Your task to perform on an android device: Clear all items from cart on walmart.com. Add duracell triple a to the cart on walmart.com, then select checkout. Image 0: 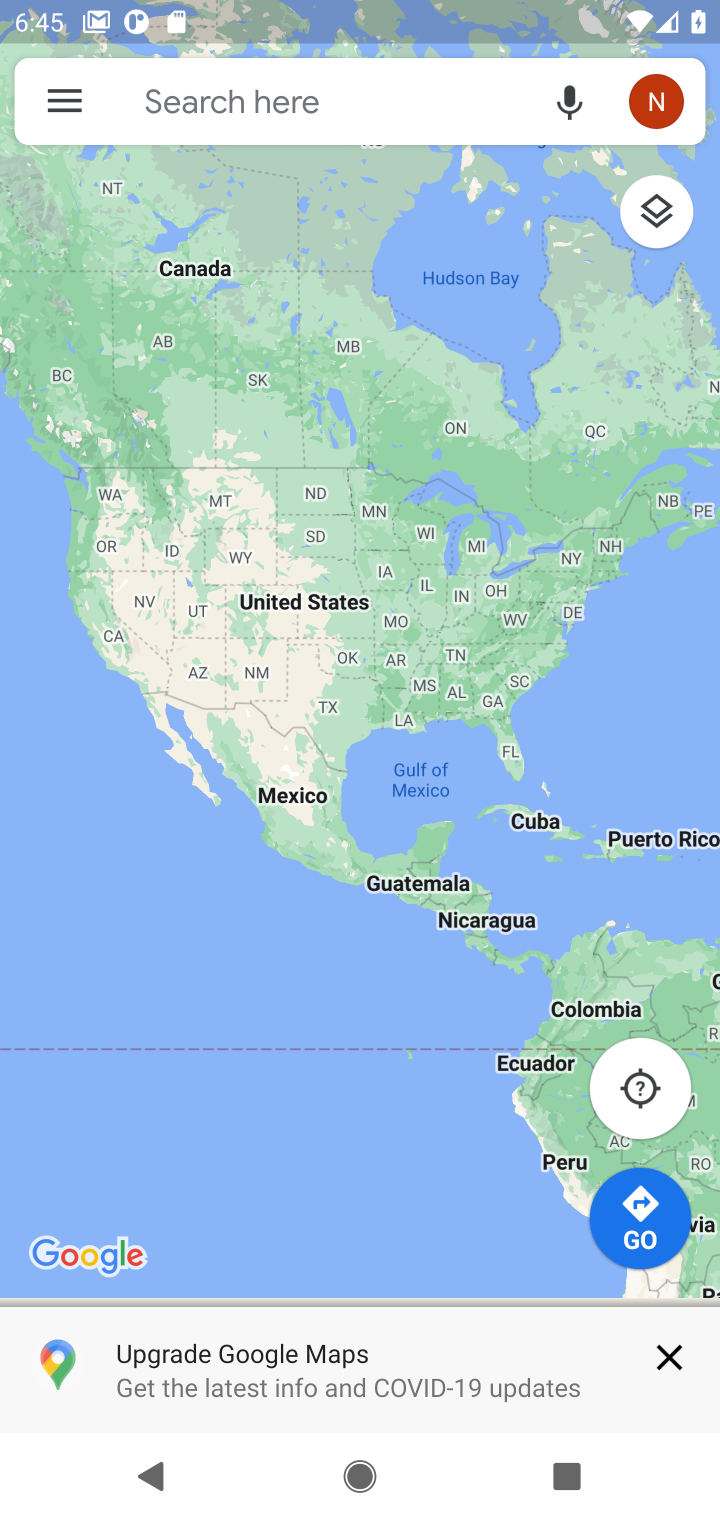
Step 0: press home button
Your task to perform on an android device: Clear all items from cart on walmart.com. Add duracell triple a to the cart on walmart.com, then select checkout. Image 1: 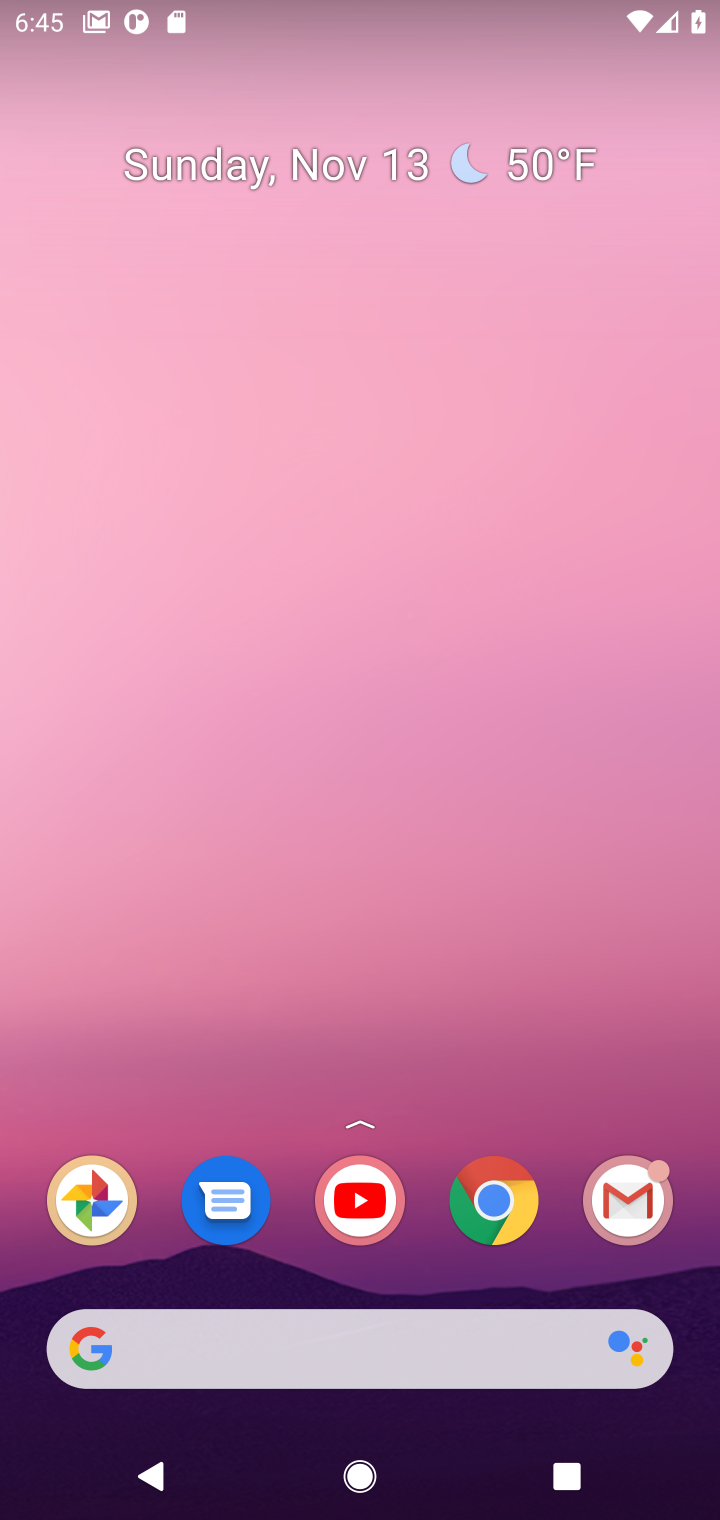
Step 1: click (468, 1212)
Your task to perform on an android device: Clear all items from cart on walmart.com. Add duracell triple a to the cart on walmart.com, then select checkout. Image 2: 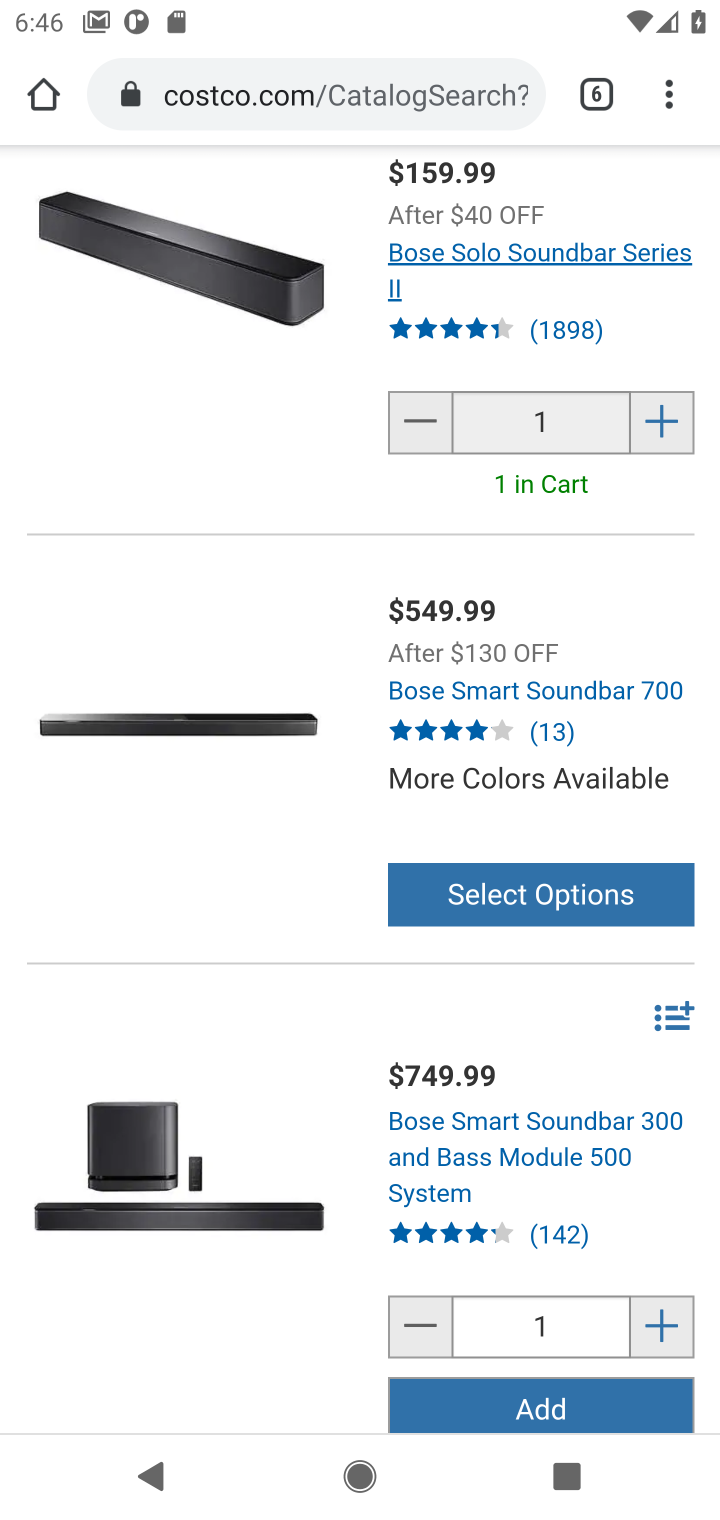
Step 2: click (608, 100)
Your task to perform on an android device: Clear all items from cart on walmart.com. Add duracell triple a to the cart on walmart.com, then select checkout. Image 3: 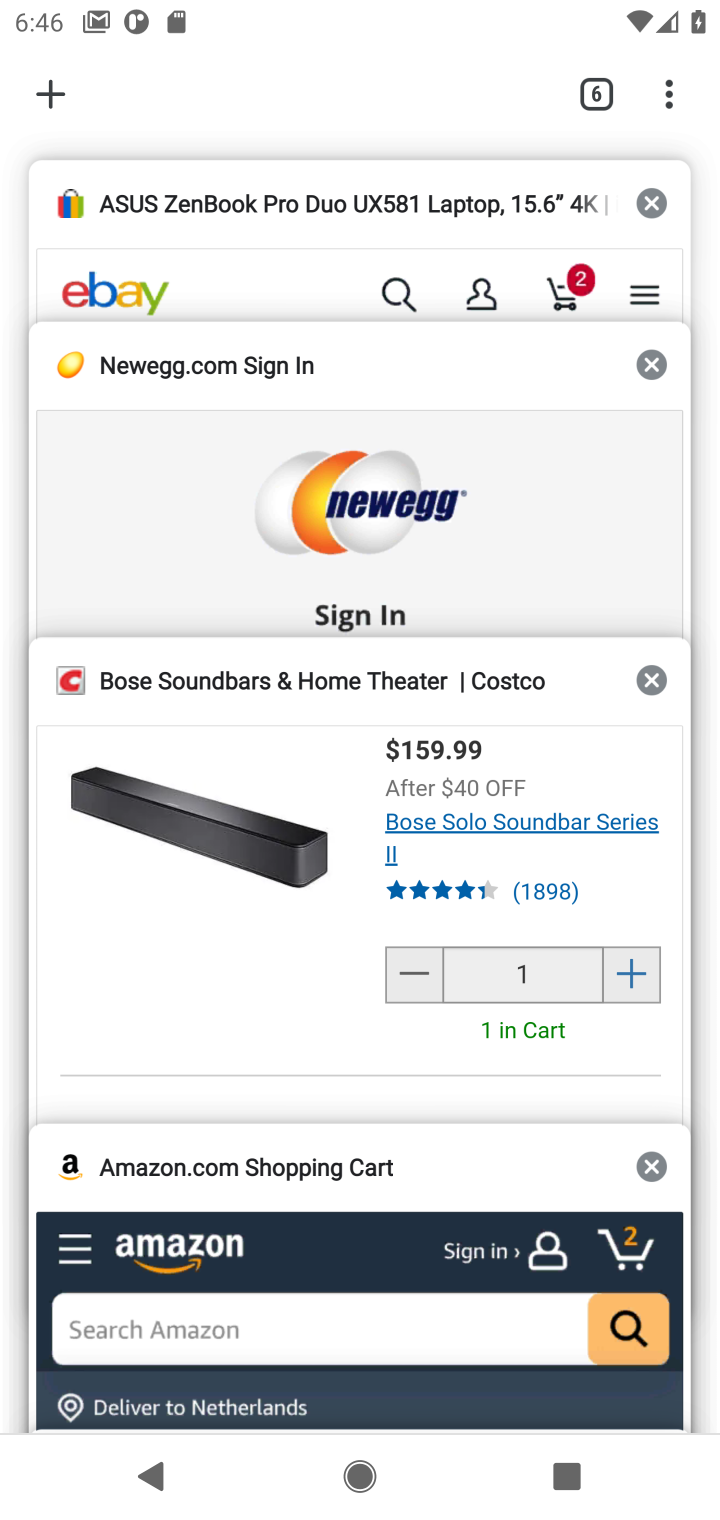
Step 3: drag from (341, 1353) to (394, 940)
Your task to perform on an android device: Clear all items from cart on walmart.com. Add duracell triple a to the cart on walmart.com, then select checkout. Image 4: 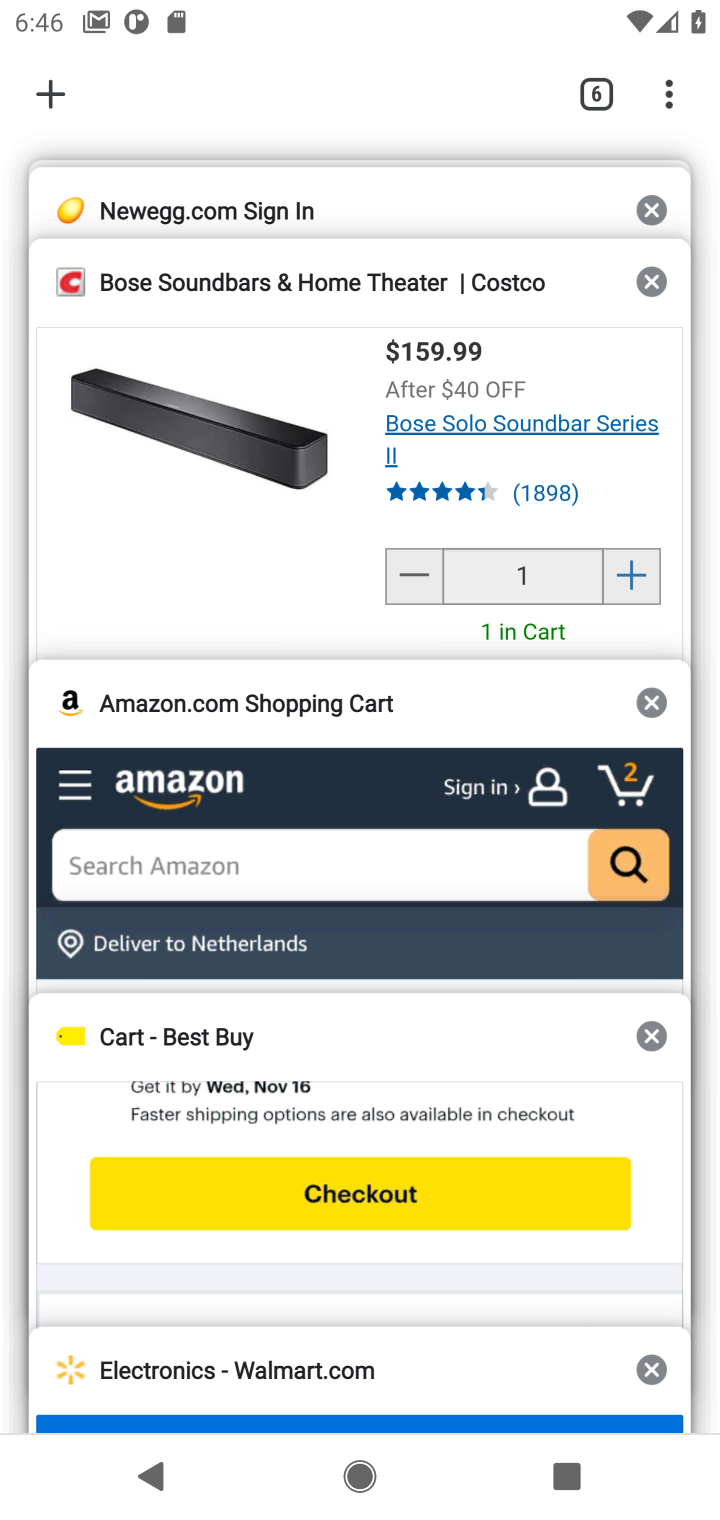
Step 4: click (354, 1066)
Your task to perform on an android device: Clear all items from cart on walmart.com. Add duracell triple a to the cart on walmart.com, then select checkout. Image 5: 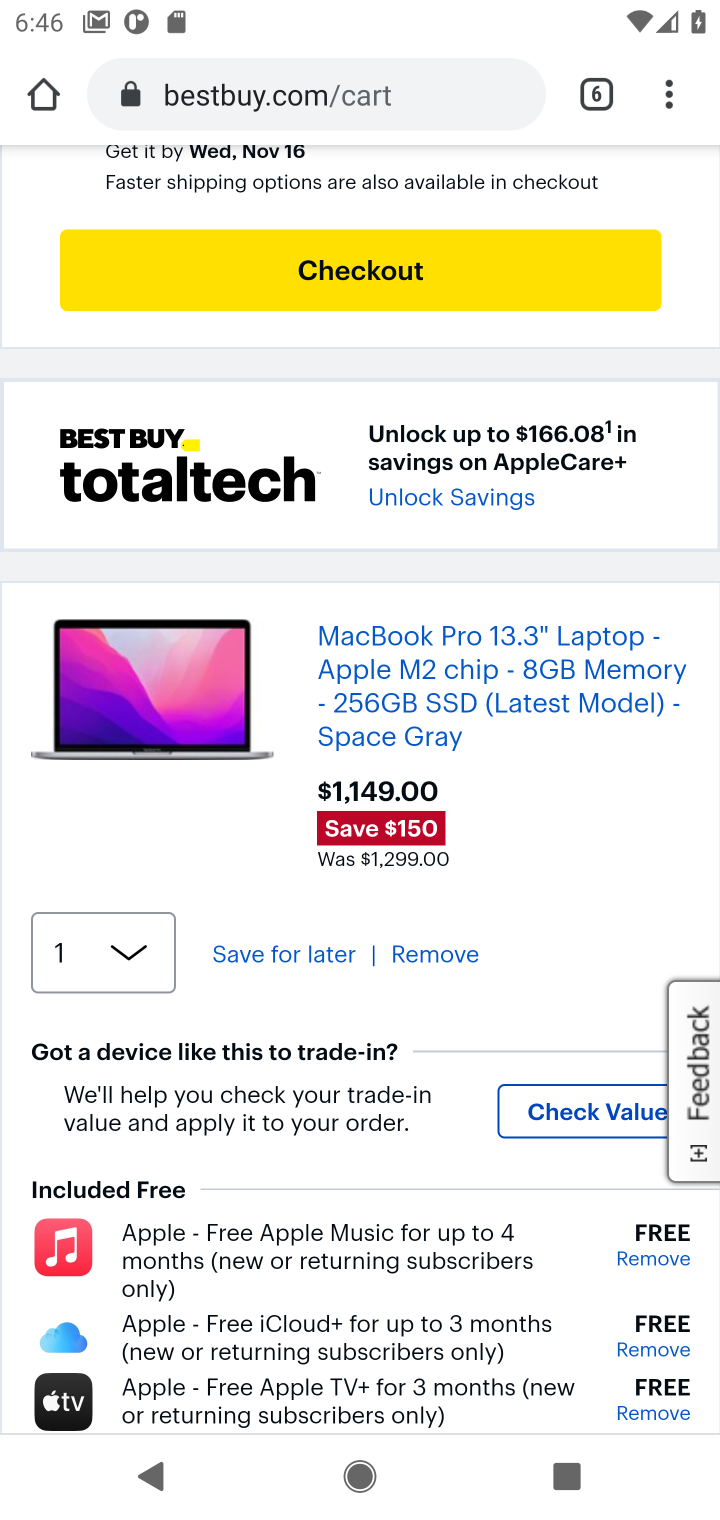
Step 5: drag from (557, 216) to (576, 1148)
Your task to perform on an android device: Clear all items from cart on walmart.com. Add duracell triple a to the cart on walmart.com, then select checkout. Image 6: 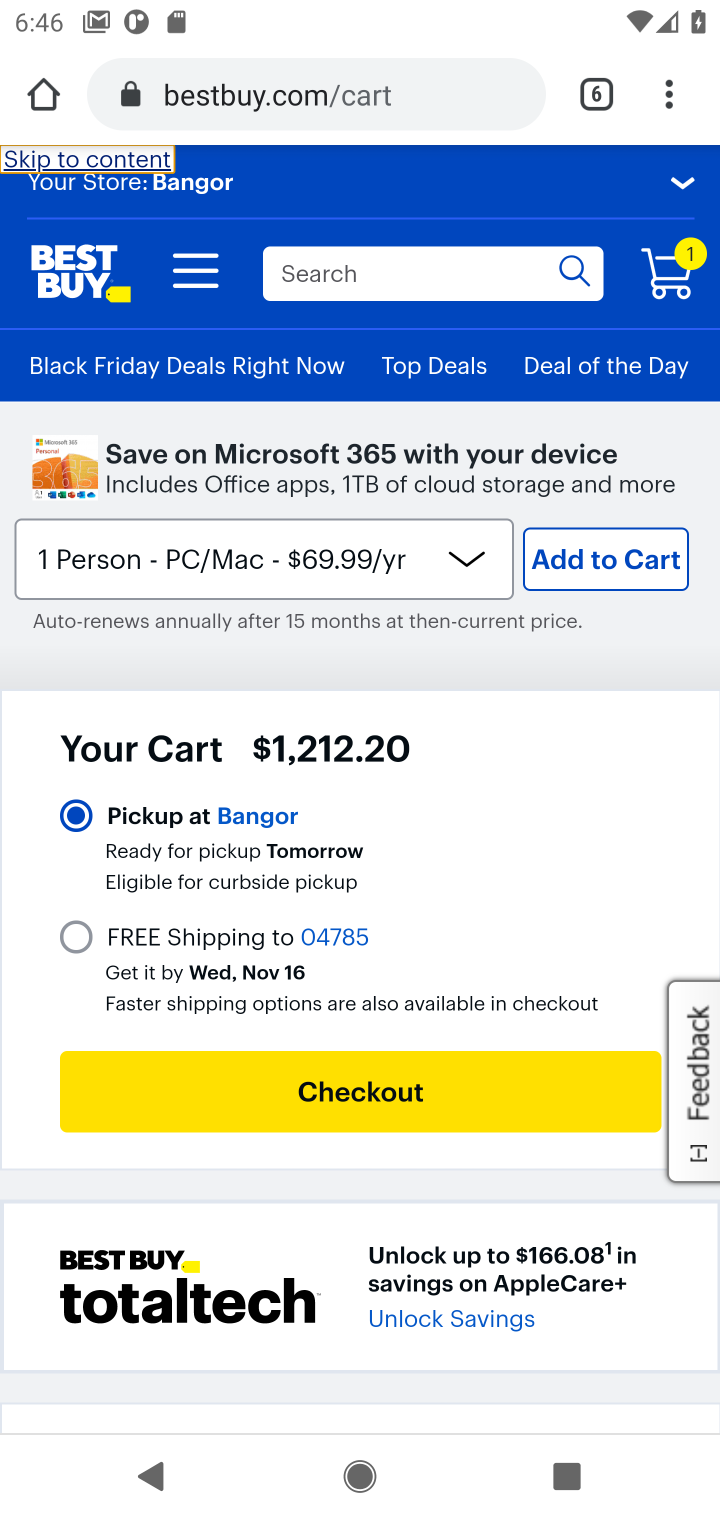
Step 6: drag from (524, 897) to (650, 447)
Your task to perform on an android device: Clear all items from cart on walmart.com. Add duracell triple a to the cart on walmart.com, then select checkout. Image 7: 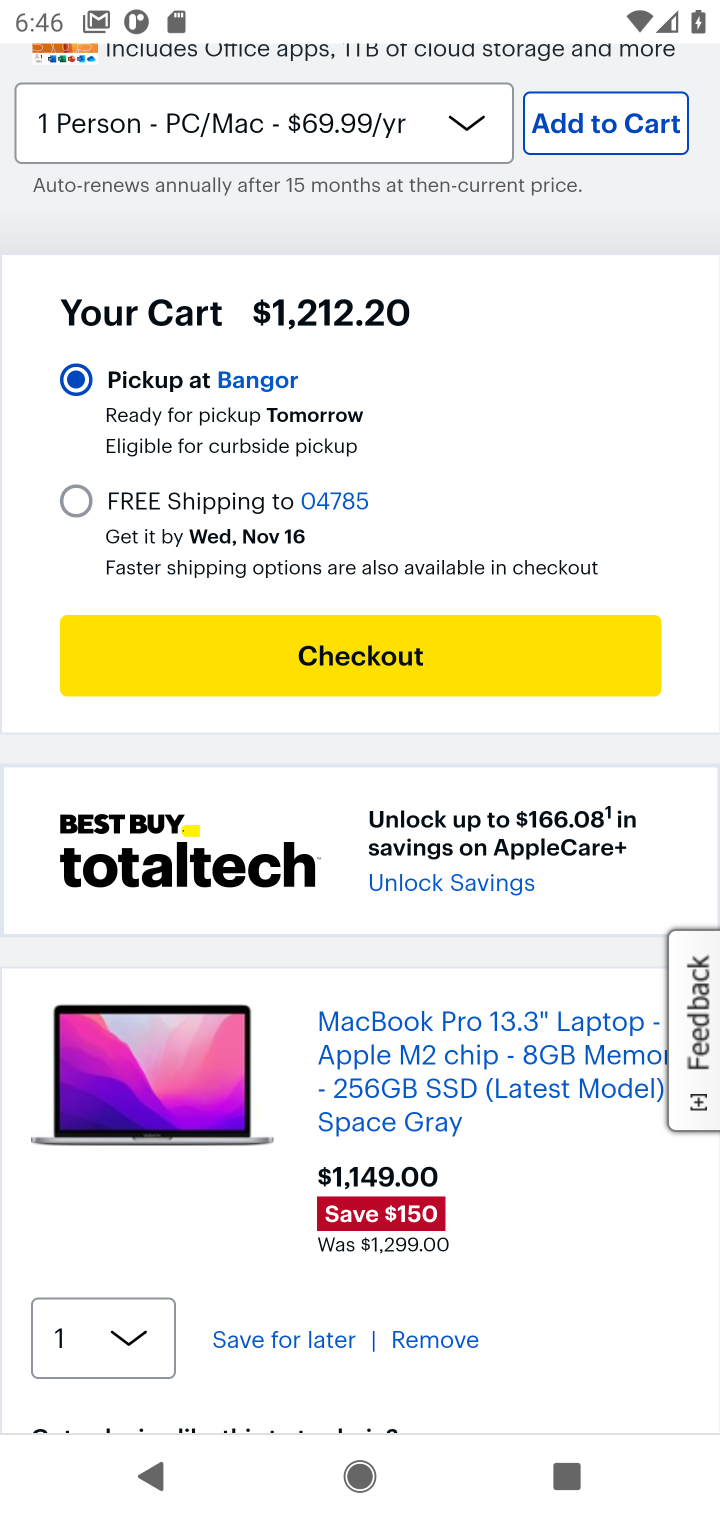
Step 7: click (409, 1335)
Your task to perform on an android device: Clear all items from cart on walmart.com. Add duracell triple a to the cart on walmart.com, then select checkout. Image 8: 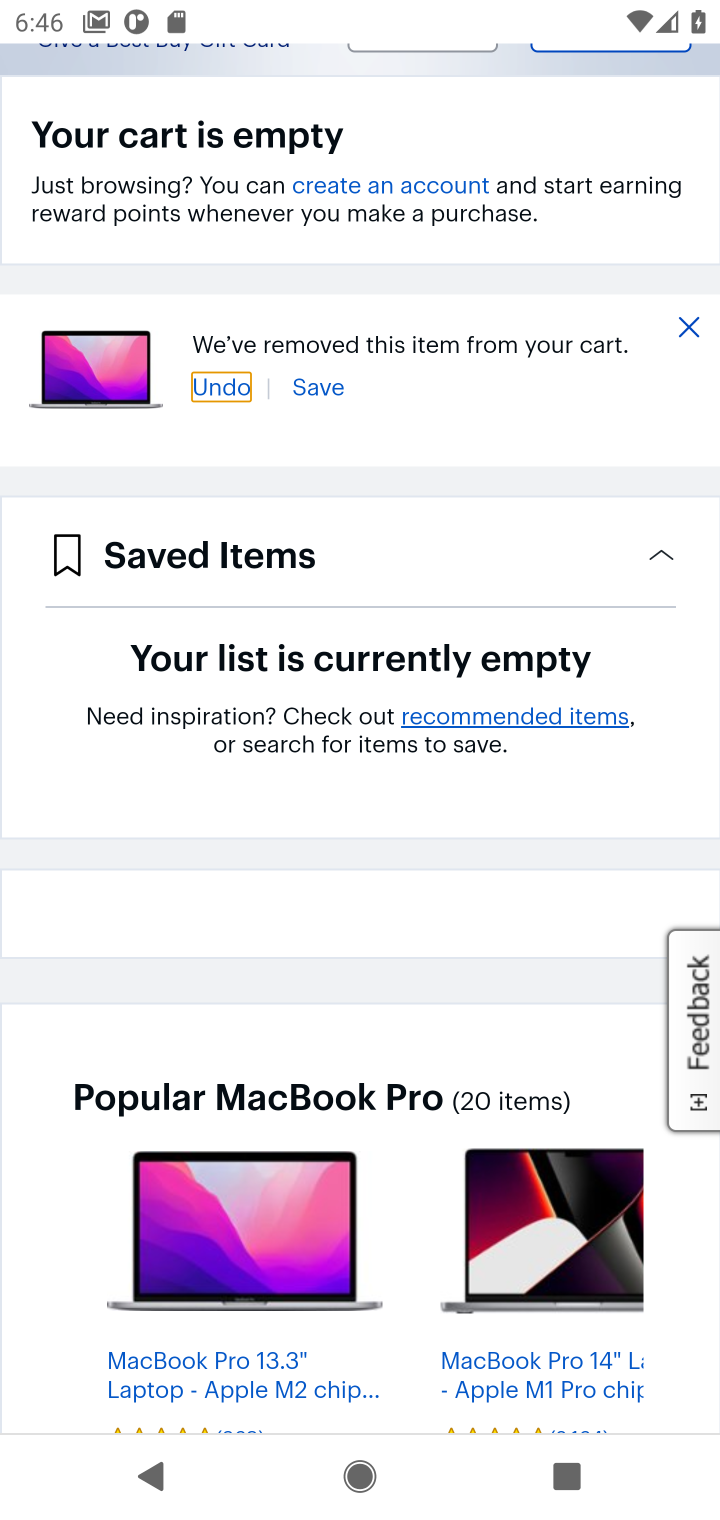
Step 8: drag from (497, 466) to (207, 1254)
Your task to perform on an android device: Clear all items from cart on walmart.com. Add duracell triple a to the cart on walmart.com, then select checkout. Image 9: 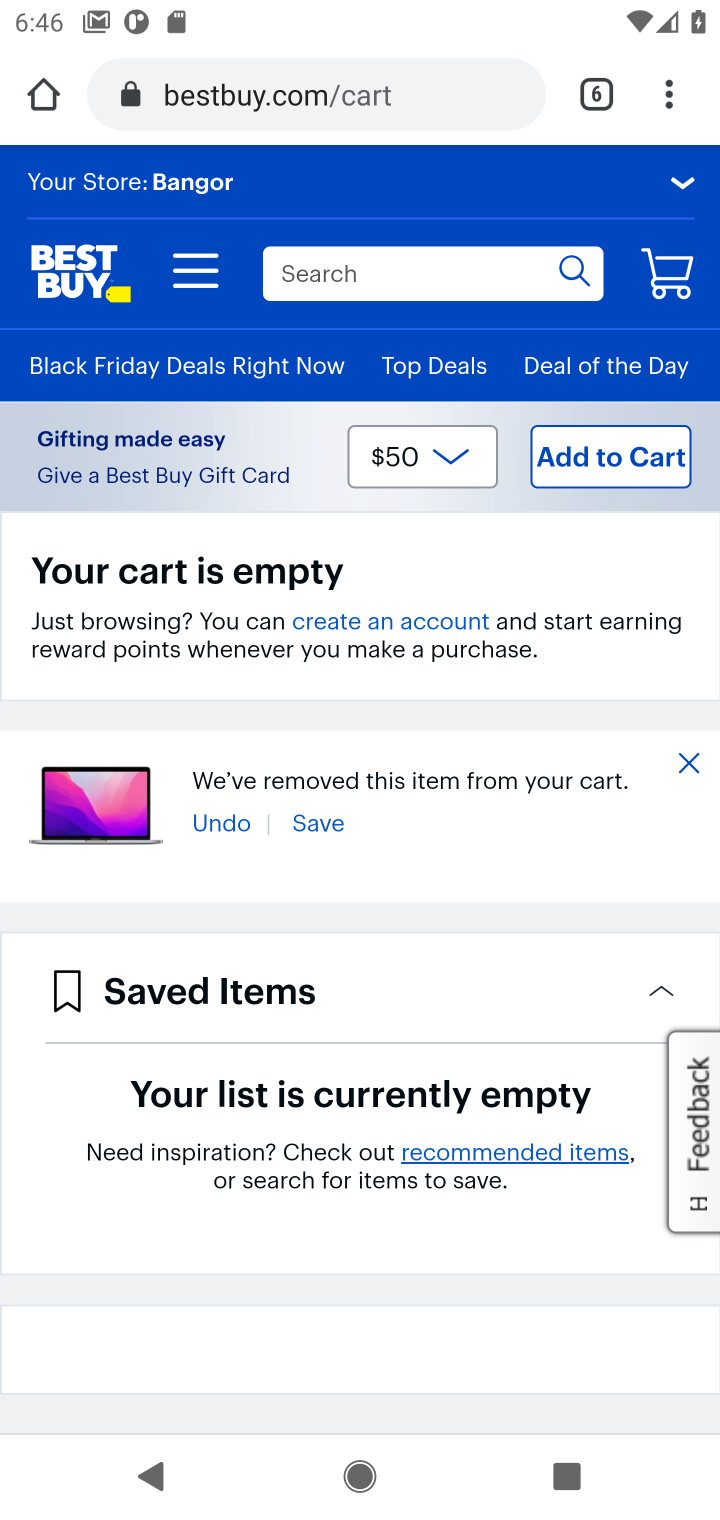
Step 9: click (403, 263)
Your task to perform on an android device: Clear all items from cart on walmart.com. Add duracell triple a to the cart on walmart.com, then select checkout. Image 10: 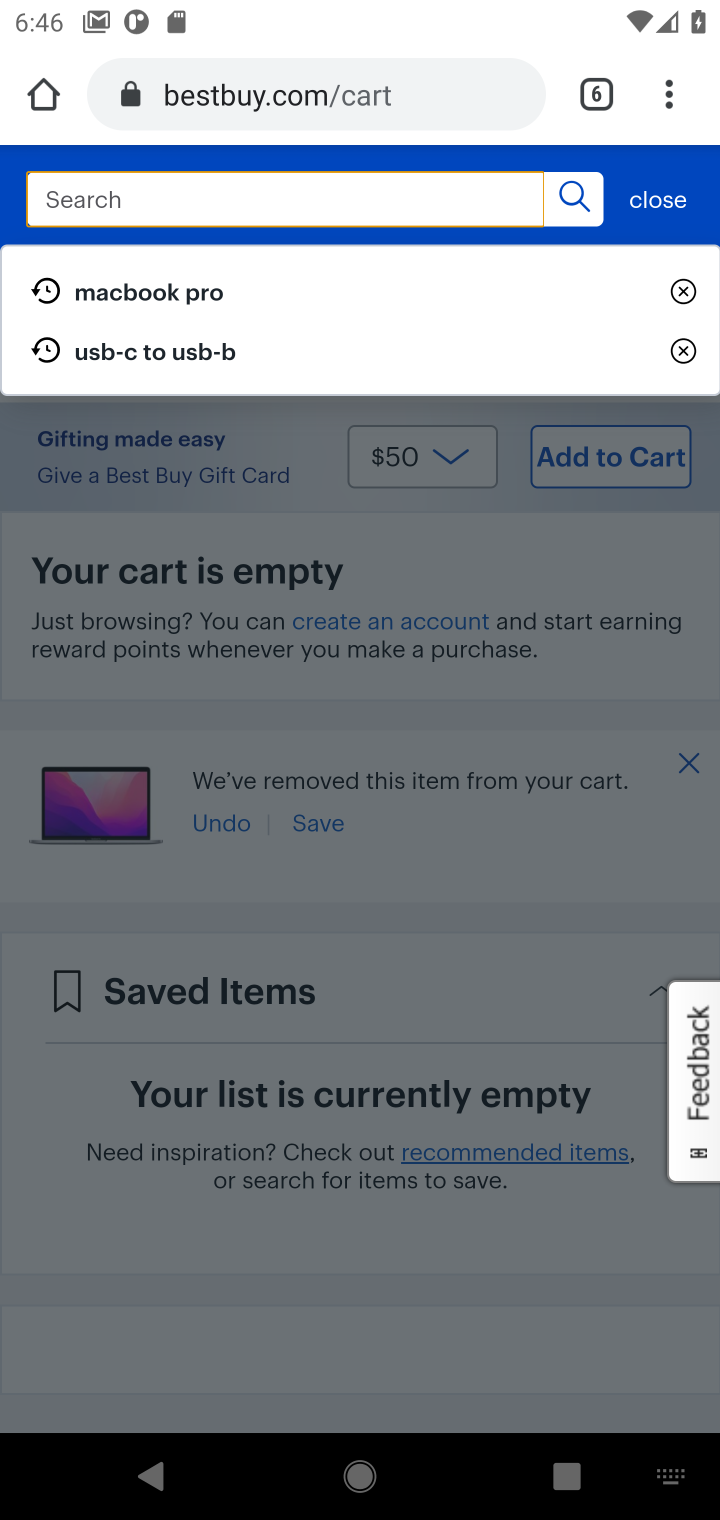
Step 10: type "duracell triple a battery"
Your task to perform on an android device: Clear all items from cart on walmart.com. Add duracell triple a to the cart on walmart.com, then select checkout. Image 11: 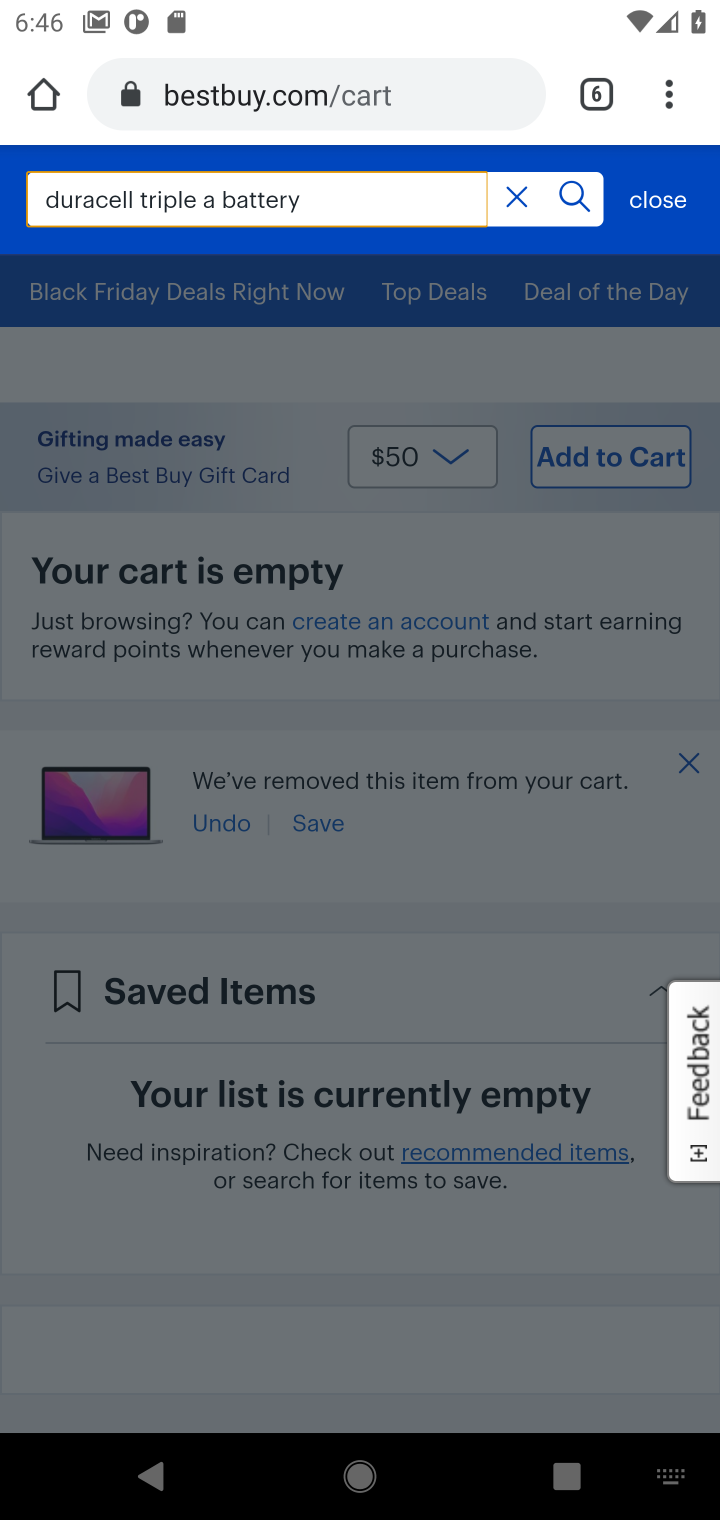
Step 11: click (565, 204)
Your task to perform on an android device: Clear all items from cart on walmart.com. Add duracell triple a to the cart on walmart.com, then select checkout. Image 12: 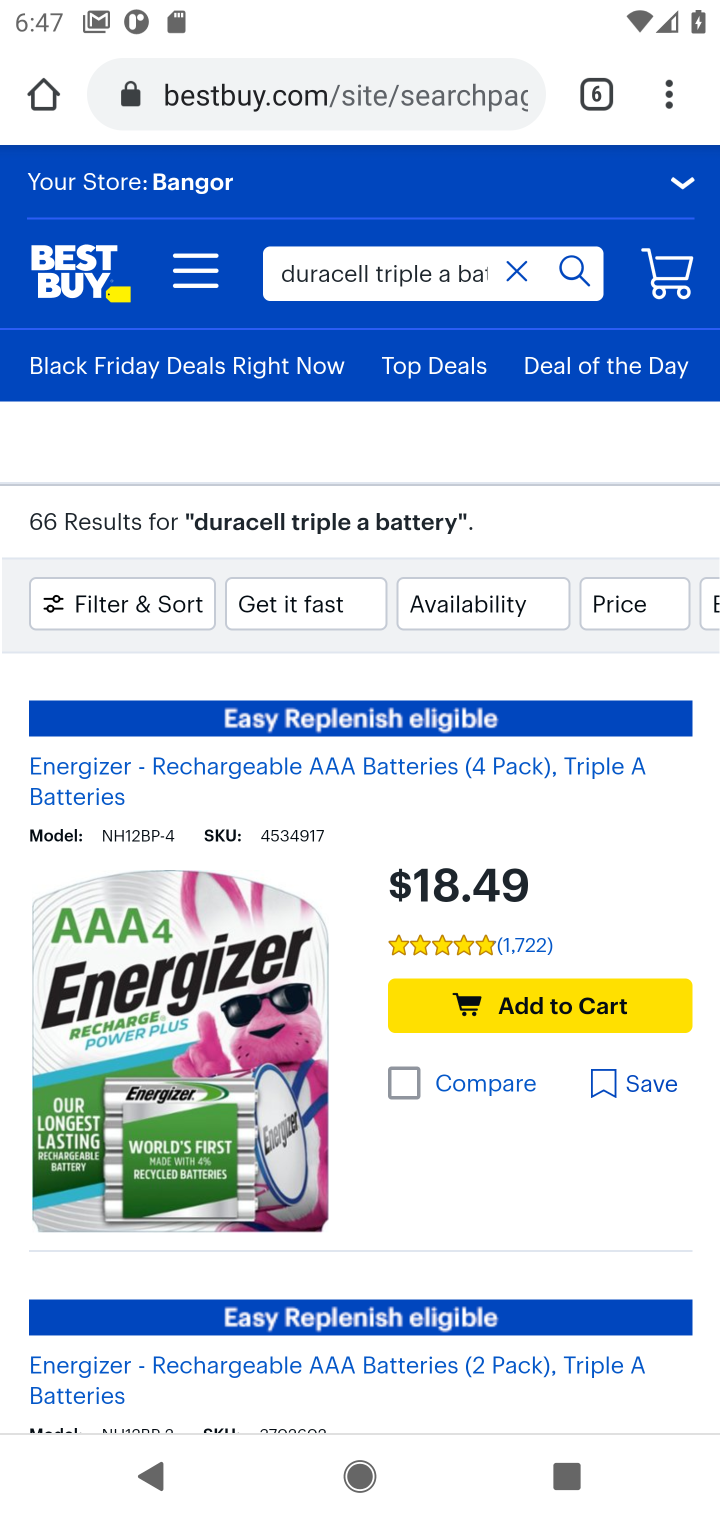
Step 12: click (573, 1084)
Your task to perform on an android device: Clear all items from cart on walmart.com. Add duracell triple a to the cart on walmart.com, then select checkout. Image 13: 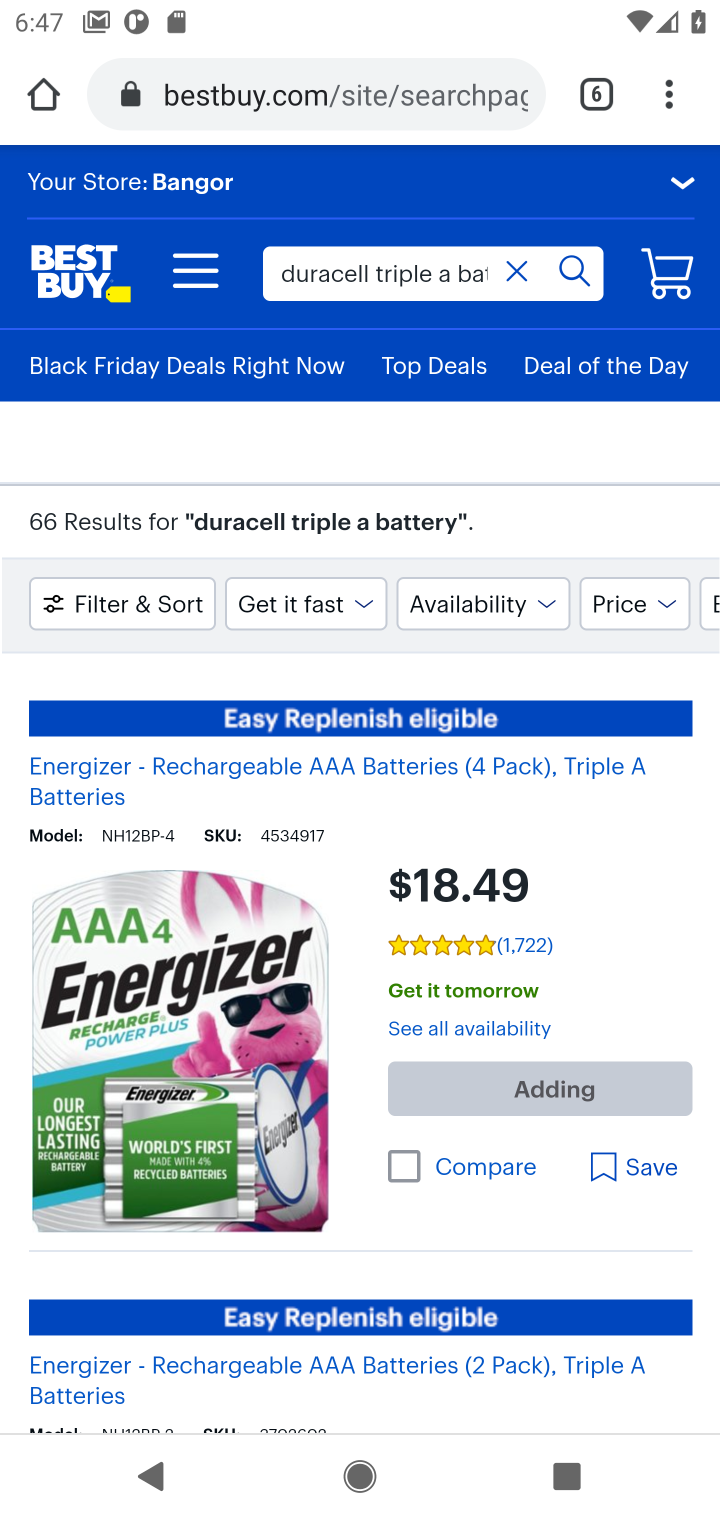
Step 13: click (549, 1102)
Your task to perform on an android device: Clear all items from cart on walmart.com. Add duracell triple a to the cart on walmart.com, then select checkout. Image 14: 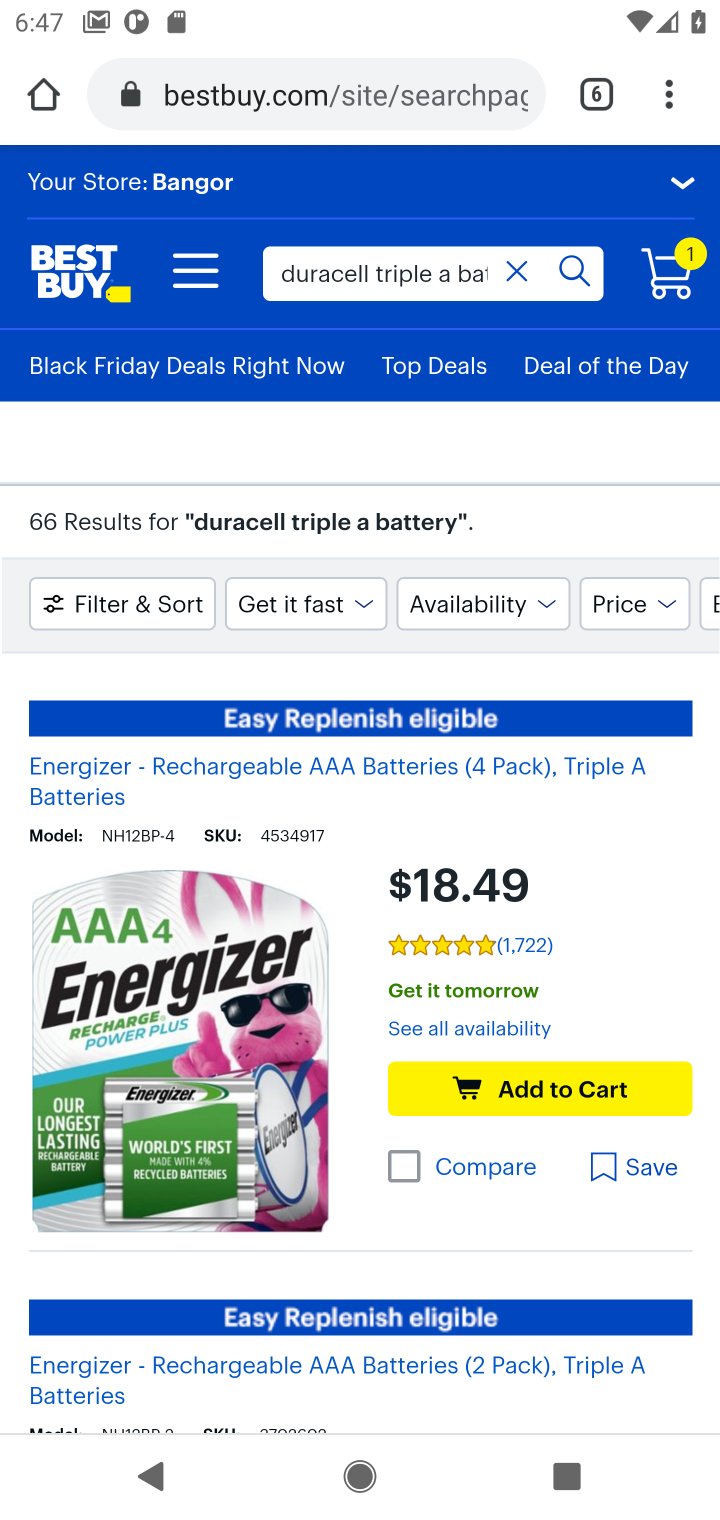
Step 14: task complete